Your task to perform on an android device: Open Google Chrome and click the shortcut for Amazon.com Image 0: 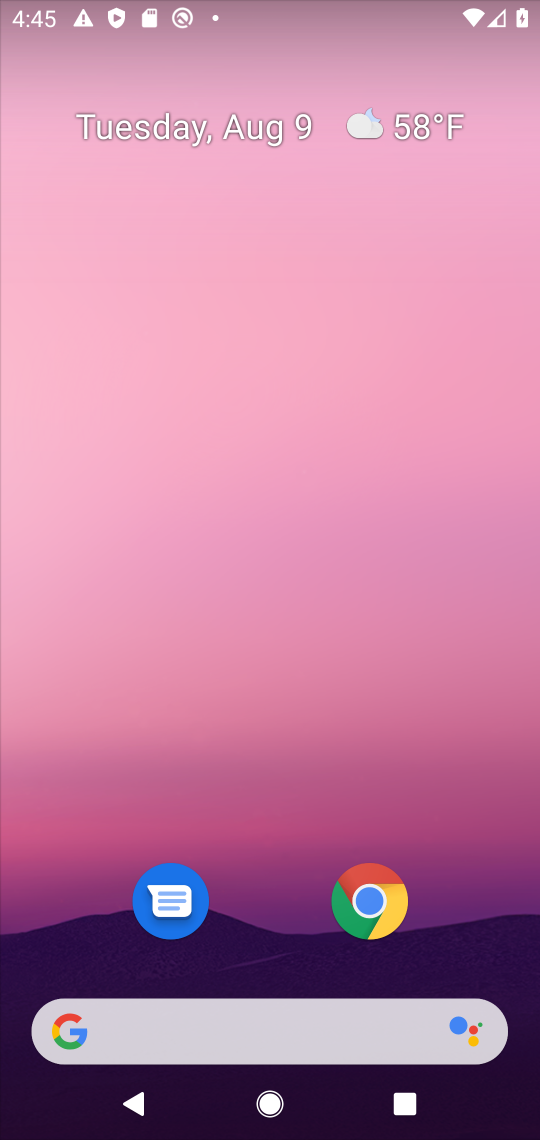
Step 0: click (388, 910)
Your task to perform on an android device: Open Google Chrome and click the shortcut for Amazon.com Image 1: 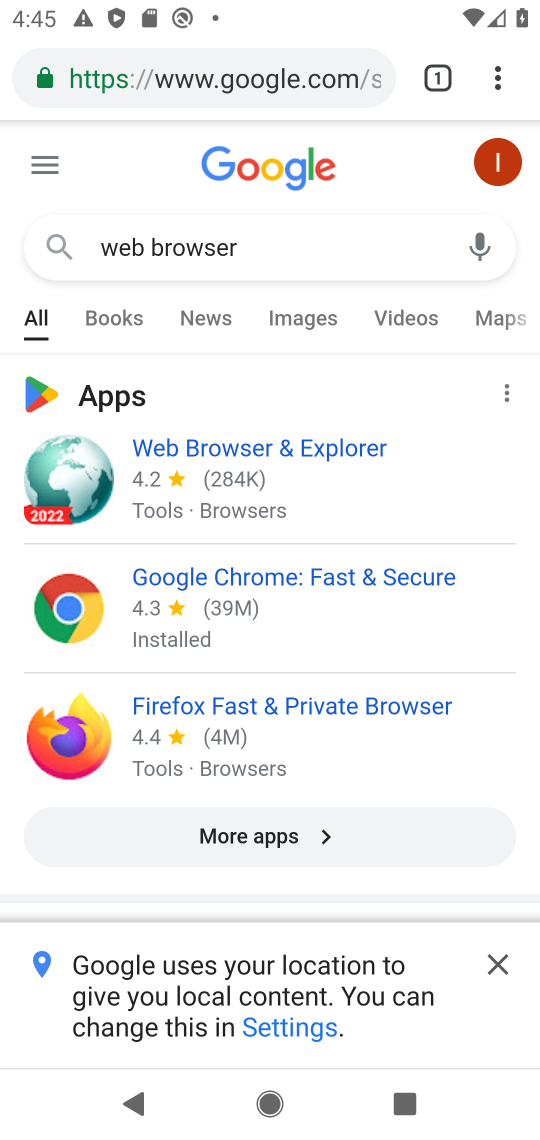
Step 1: click (502, 60)
Your task to perform on an android device: Open Google Chrome and click the shortcut for Amazon.com Image 2: 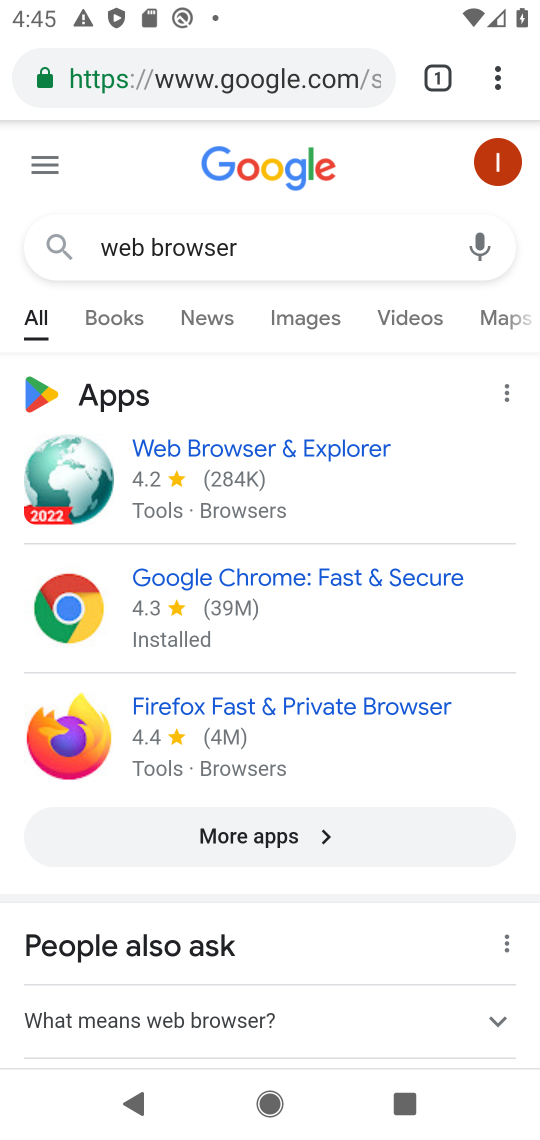
Step 2: click (505, 74)
Your task to perform on an android device: Open Google Chrome and click the shortcut for Amazon.com Image 3: 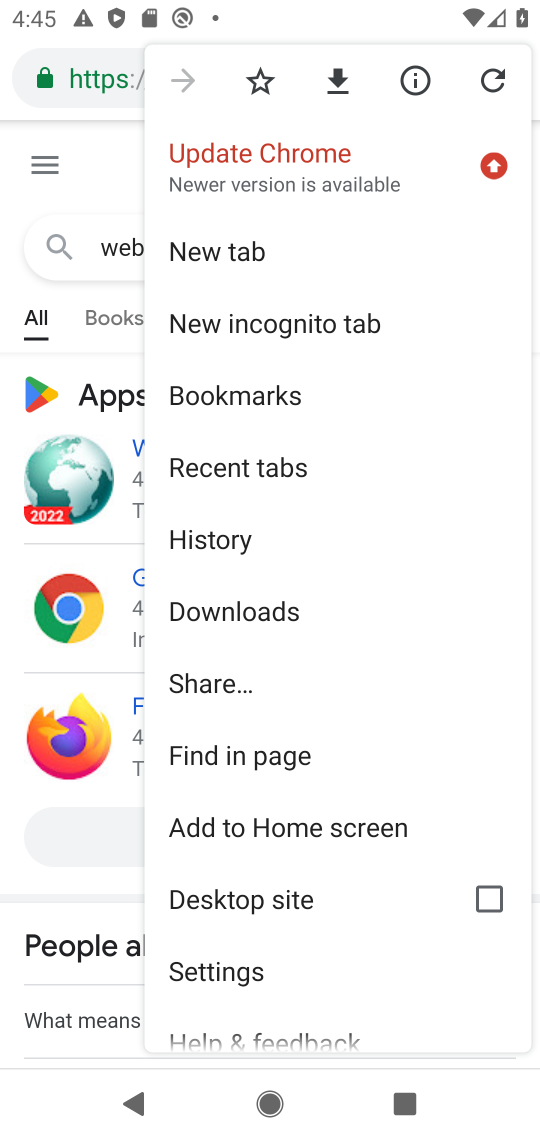
Step 3: click (221, 992)
Your task to perform on an android device: Open Google Chrome and click the shortcut for Amazon.com Image 4: 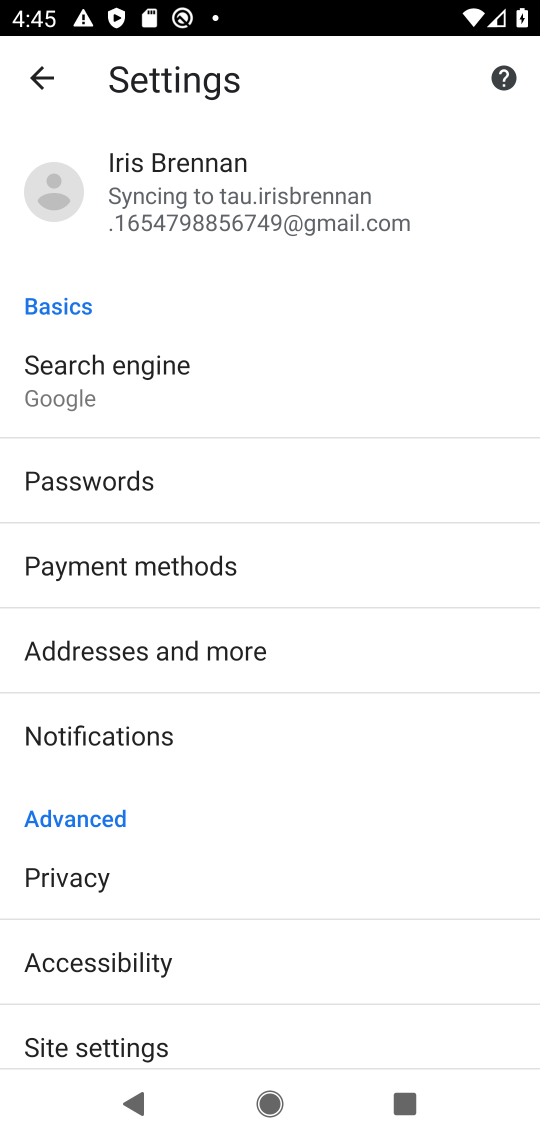
Step 4: click (46, 75)
Your task to perform on an android device: Open Google Chrome and click the shortcut for Amazon.com Image 5: 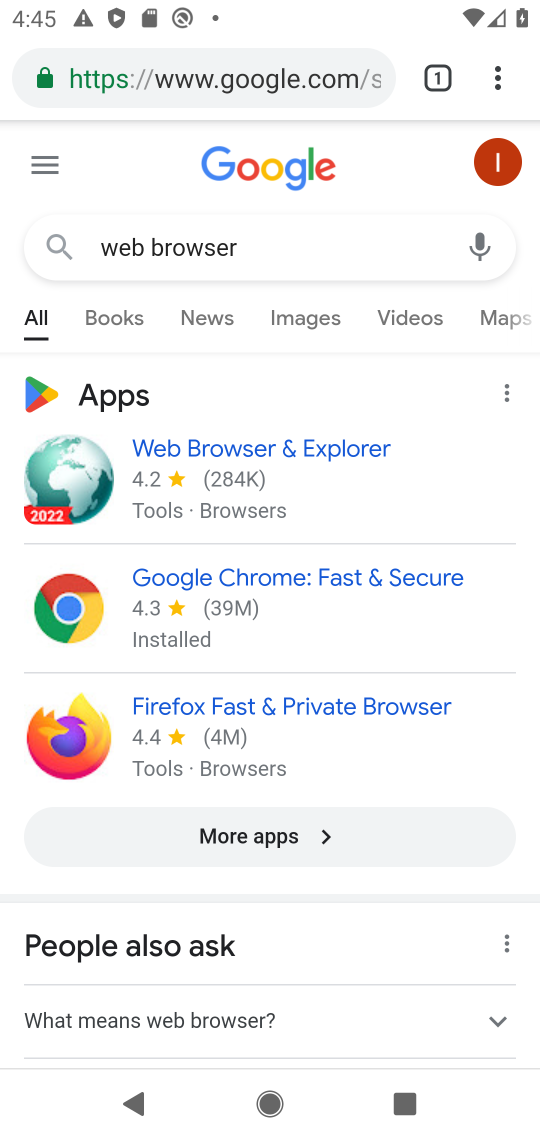
Step 5: click (499, 70)
Your task to perform on an android device: Open Google Chrome and click the shortcut for Amazon.com Image 6: 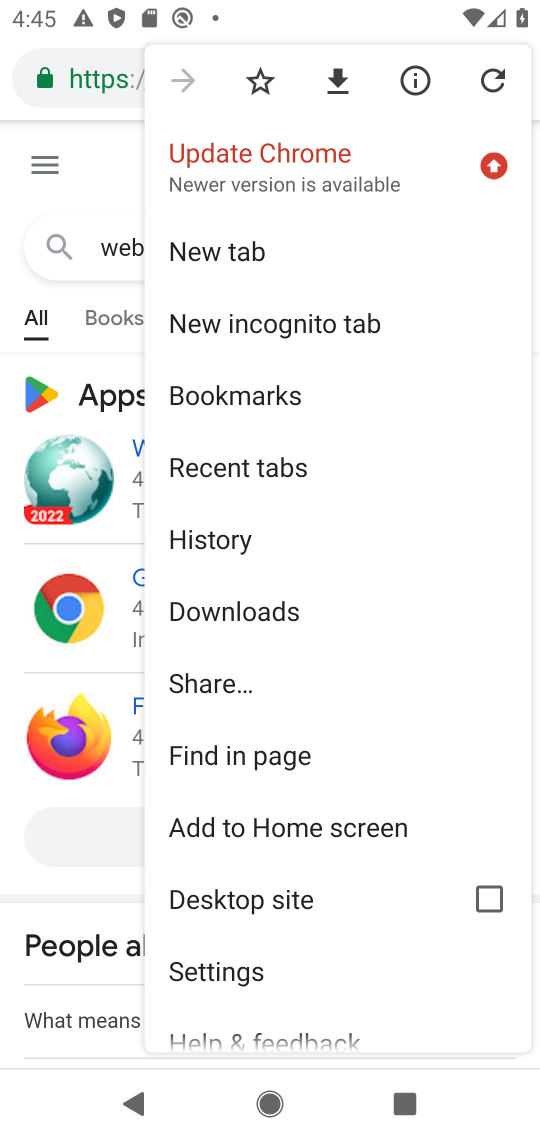
Step 6: click (176, 255)
Your task to perform on an android device: Open Google Chrome and click the shortcut for Amazon.com Image 7: 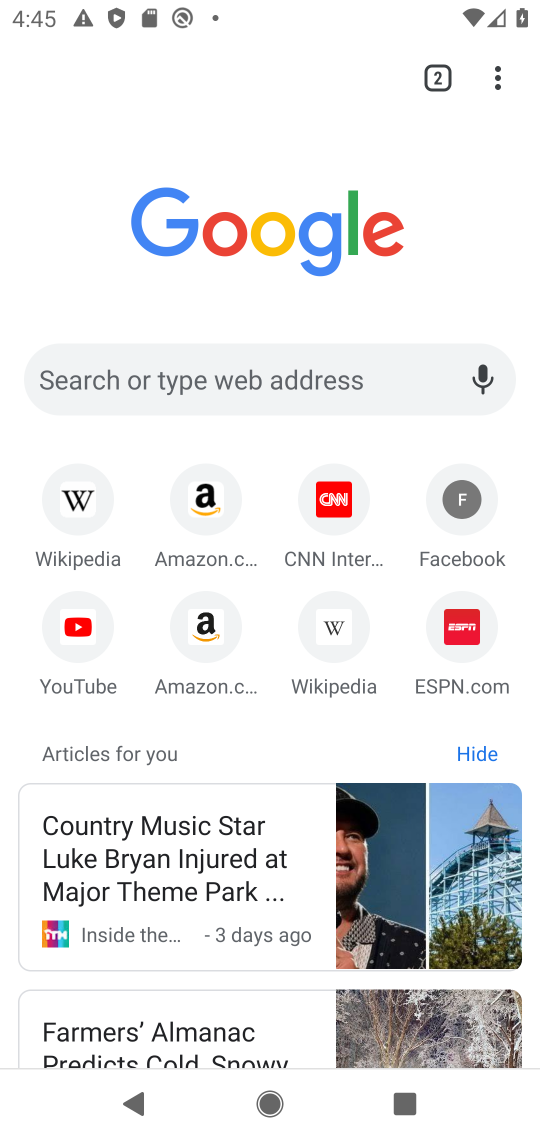
Step 7: click (231, 503)
Your task to perform on an android device: Open Google Chrome and click the shortcut for Amazon.com Image 8: 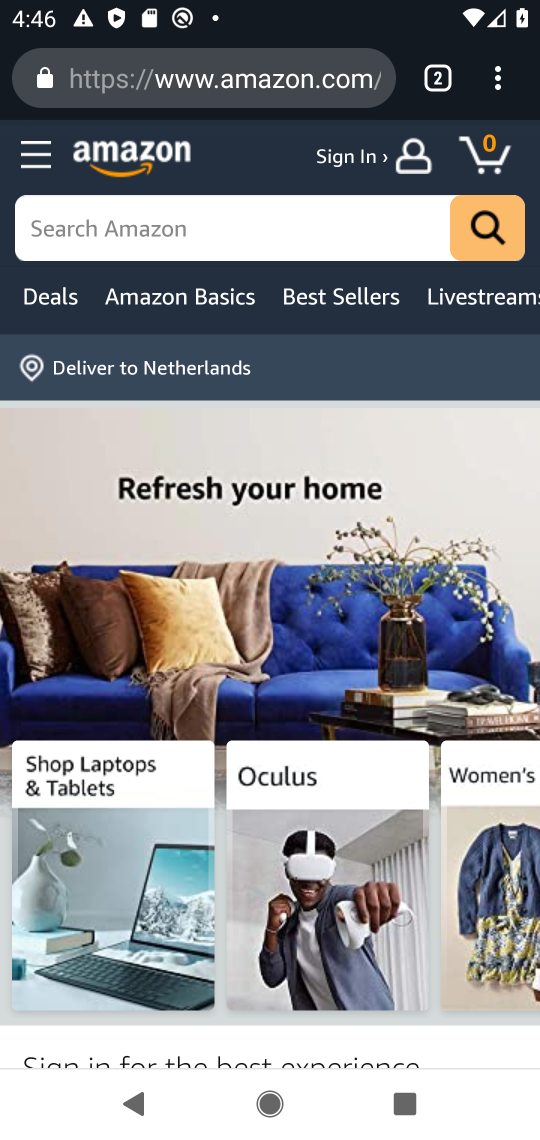
Step 8: task complete